Your task to perform on an android device: turn off location history Image 0: 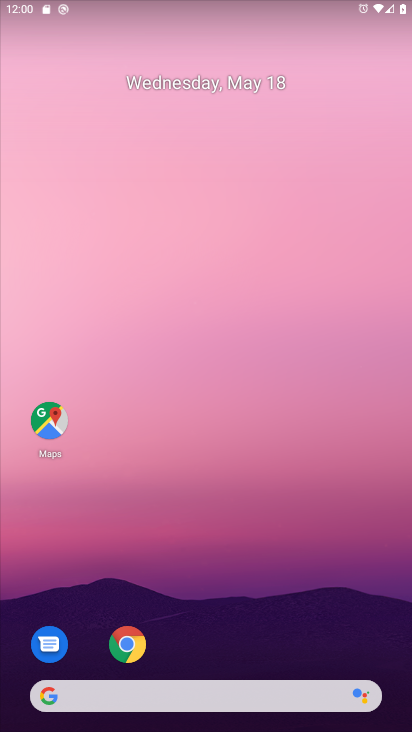
Step 0: drag from (216, 662) to (205, 184)
Your task to perform on an android device: turn off location history Image 1: 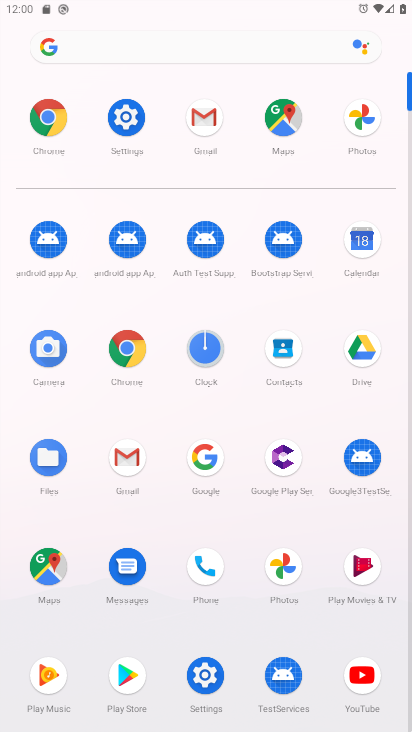
Step 1: click (125, 118)
Your task to perform on an android device: turn off location history Image 2: 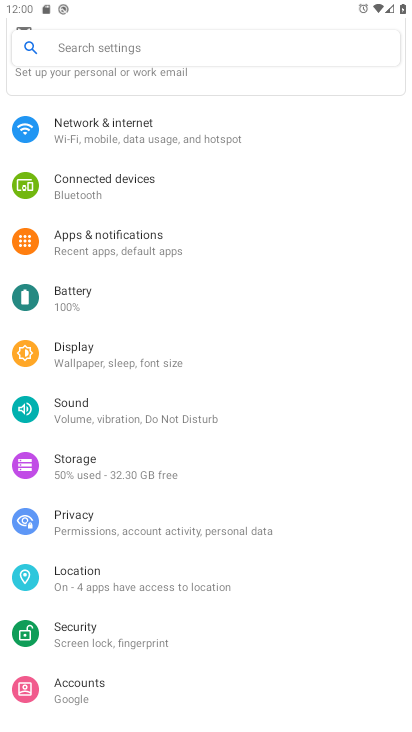
Step 2: click (106, 572)
Your task to perform on an android device: turn off location history Image 3: 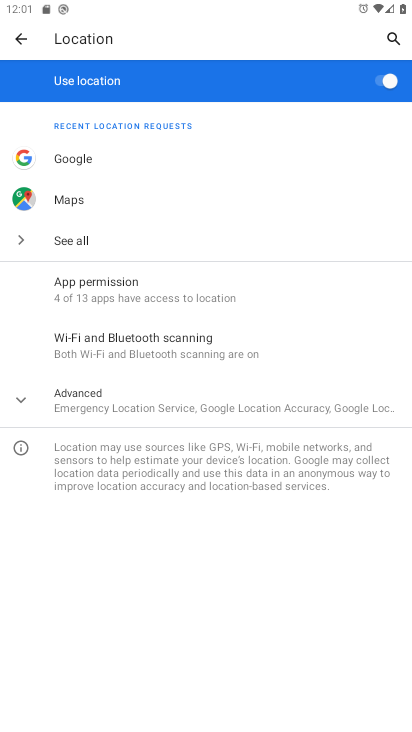
Step 3: click (32, 399)
Your task to perform on an android device: turn off location history Image 4: 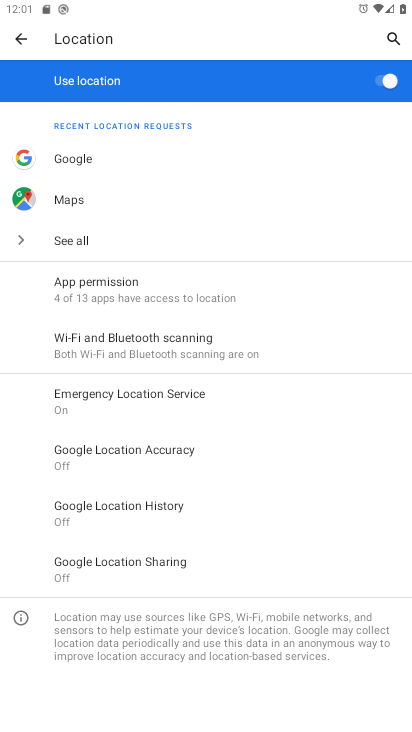
Step 4: click (127, 500)
Your task to perform on an android device: turn off location history Image 5: 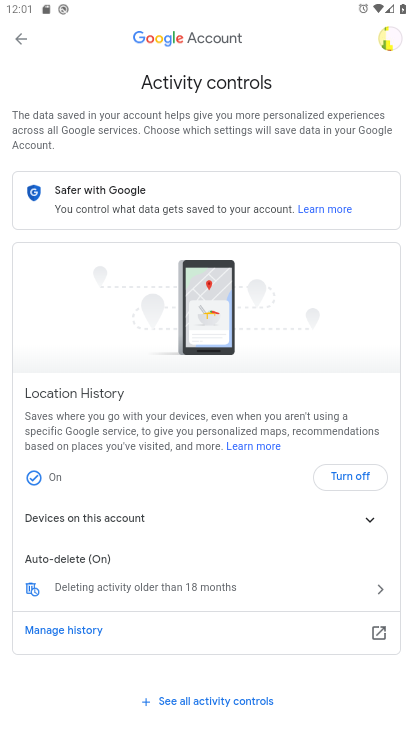
Step 5: click (356, 480)
Your task to perform on an android device: turn off location history Image 6: 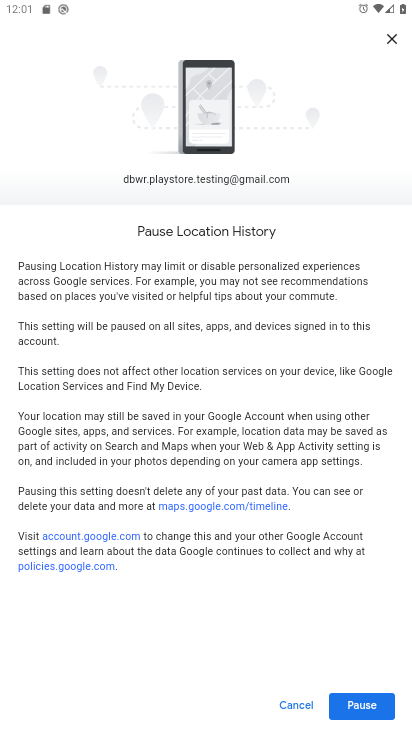
Step 6: click (359, 703)
Your task to perform on an android device: turn off location history Image 7: 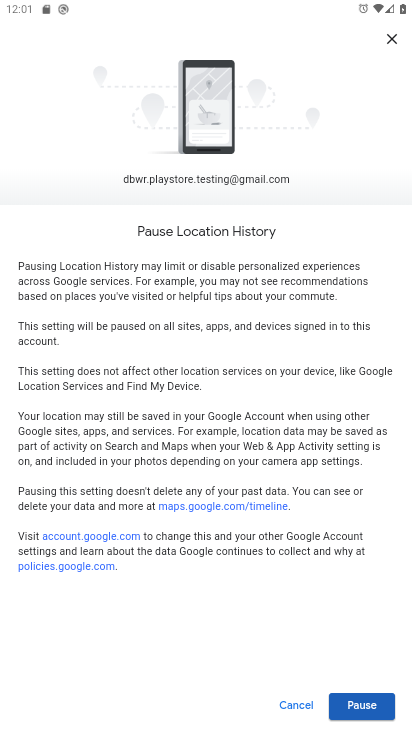
Step 7: click (359, 704)
Your task to perform on an android device: turn off location history Image 8: 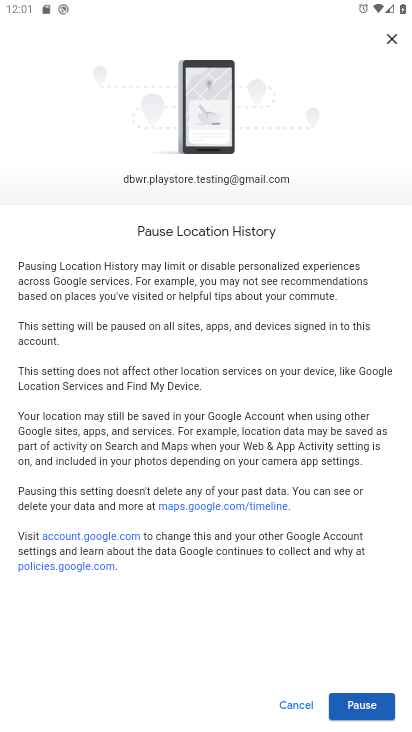
Step 8: click (348, 708)
Your task to perform on an android device: turn off location history Image 9: 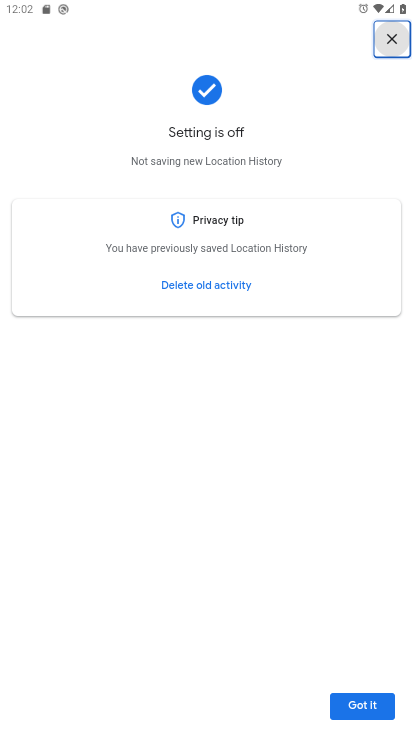
Step 9: click (361, 709)
Your task to perform on an android device: turn off location history Image 10: 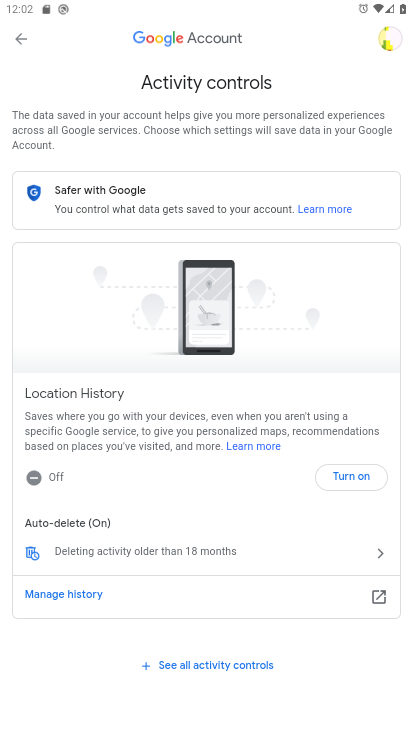
Step 10: task complete